Your task to perform on an android device: Go to notification settings Image 0: 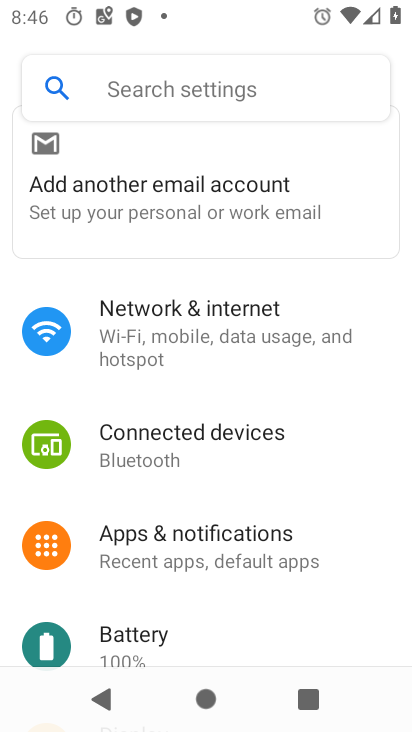
Step 0: click (211, 547)
Your task to perform on an android device: Go to notification settings Image 1: 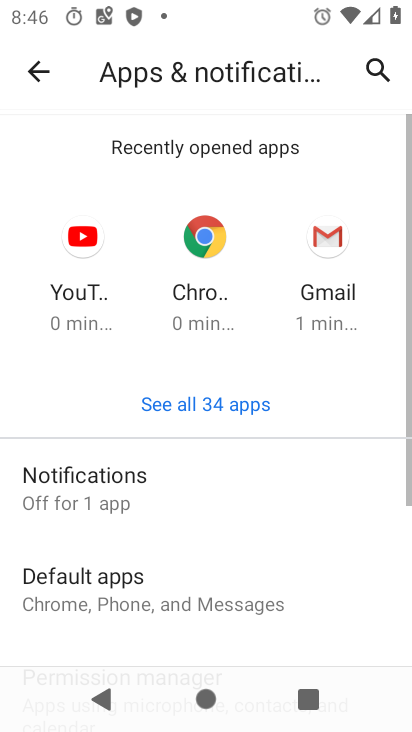
Step 1: click (66, 505)
Your task to perform on an android device: Go to notification settings Image 2: 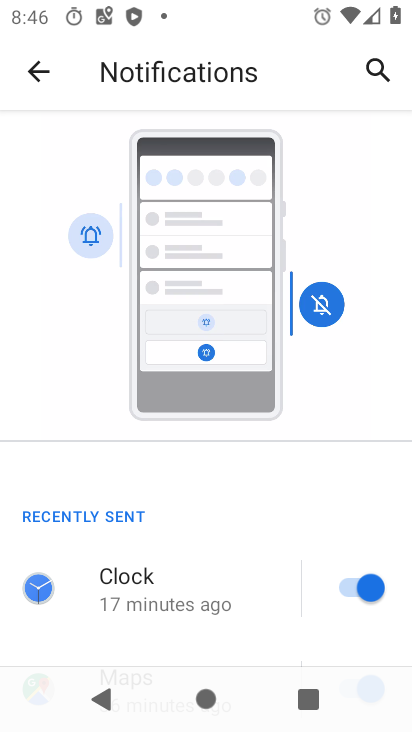
Step 2: task complete